Your task to perform on an android device: change alarm snooze length Image 0: 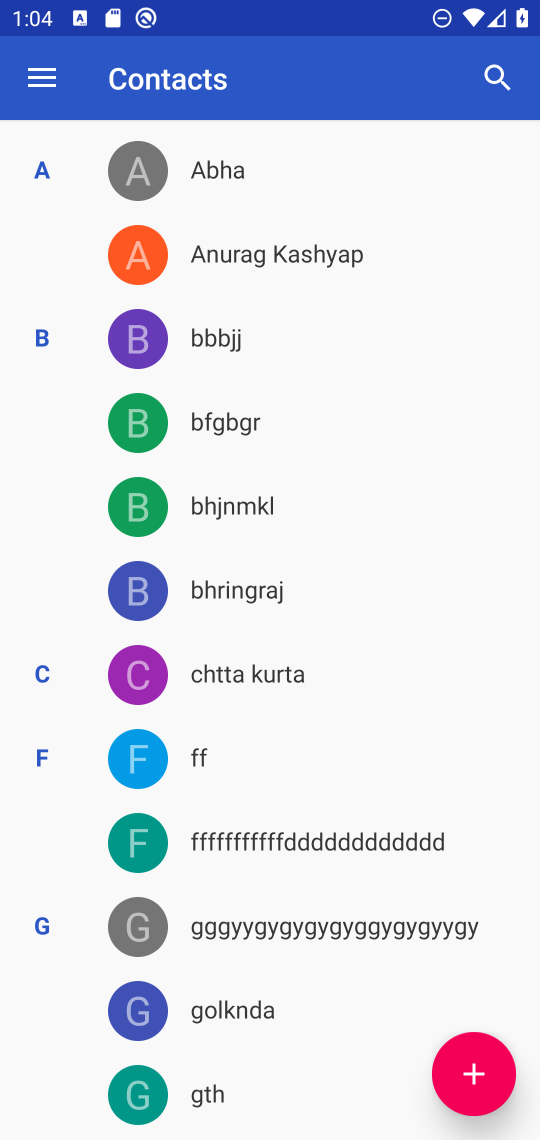
Step 0: press home button
Your task to perform on an android device: change alarm snooze length Image 1: 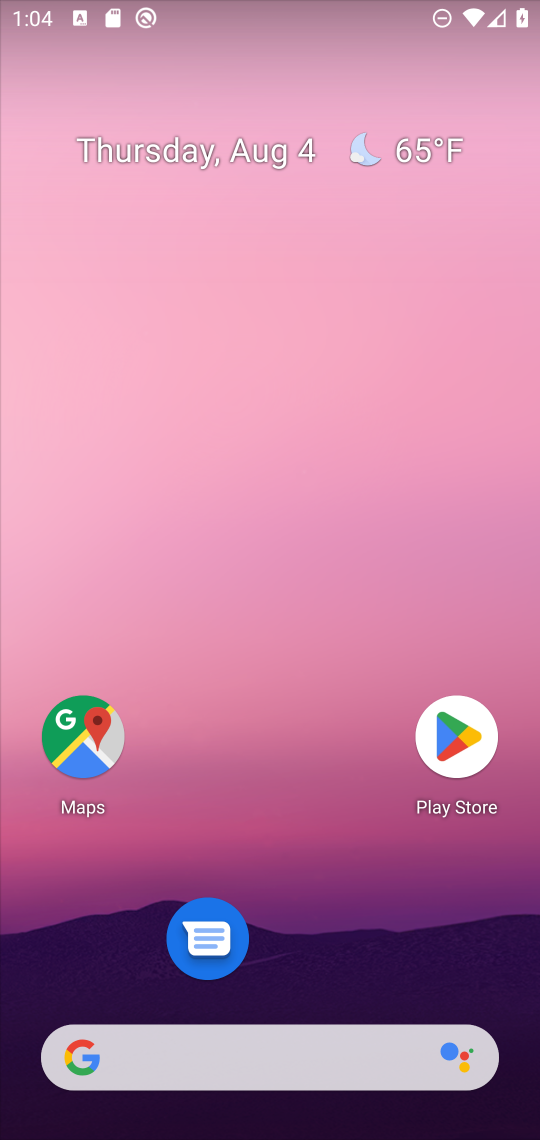
Step 1: drag from (300, 1096) to (385, 365)
Your task to perform on an android device: change alarm snooze length Image 2: 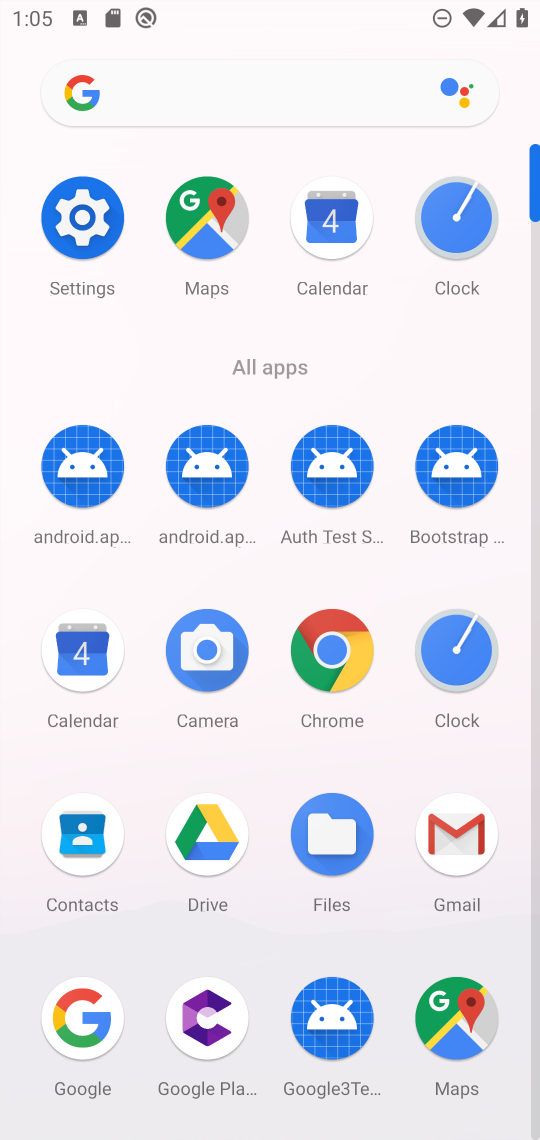
Step 2: click (450, 651)
Your task to perform on an android device: change alarm snooze length Image 3: 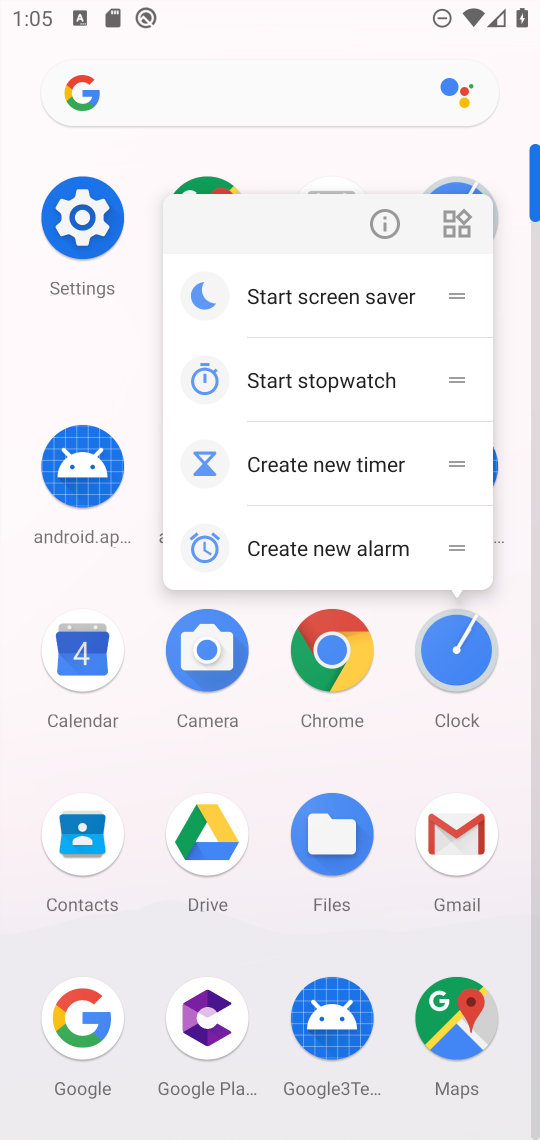
Step 3: click (450, 651)
Your task to perform on an android device: change alarm snooze length Image 4: 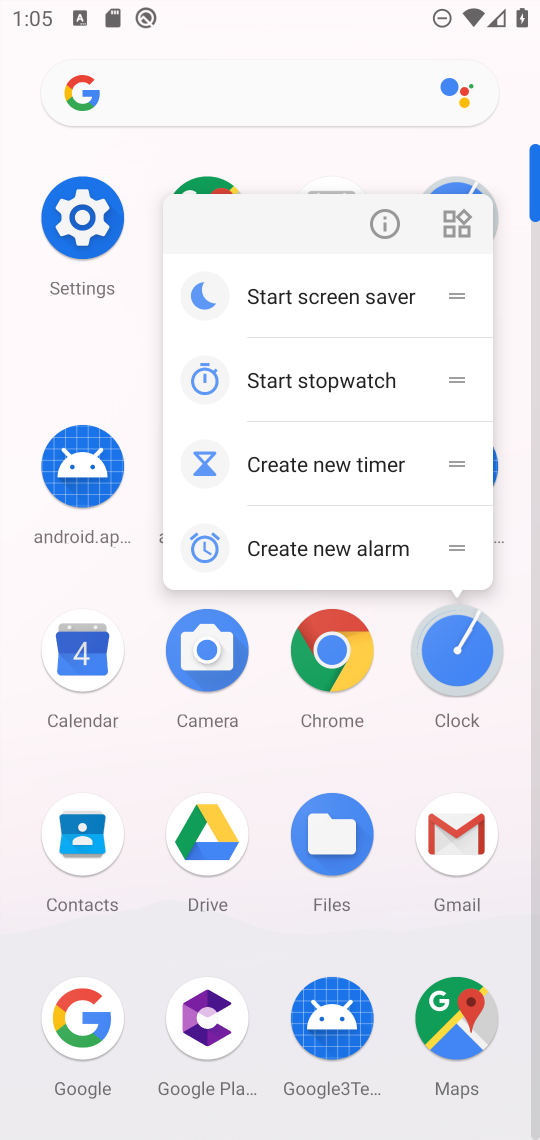
Step 4: click (455, 692)
Your task to perform on an android device: change alarm snooze length Image 5: 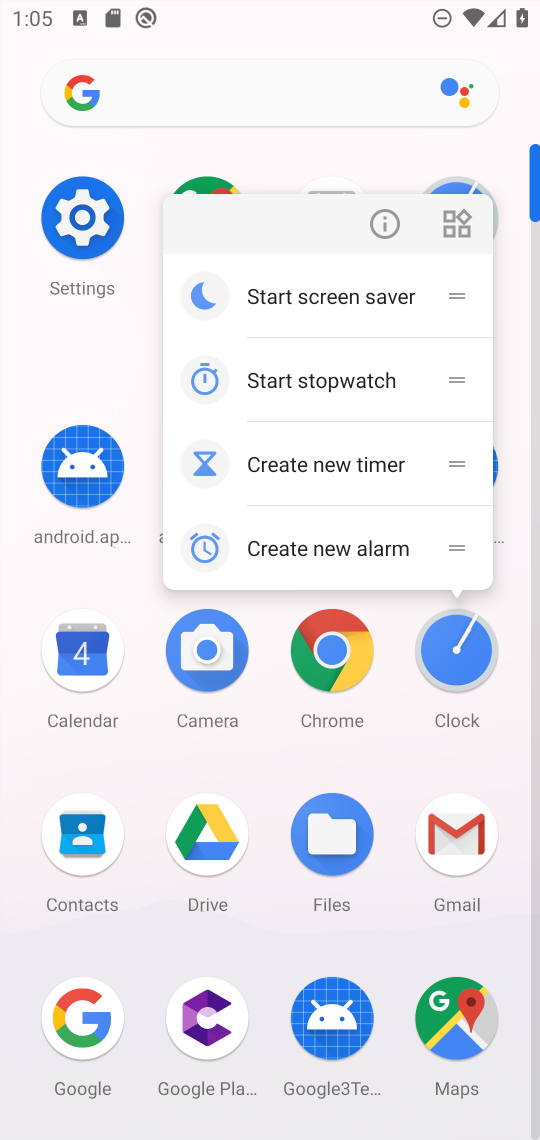
Step 5: click (447, 661)
Your task to perform on an android device: change alarm snooze length Image 6: 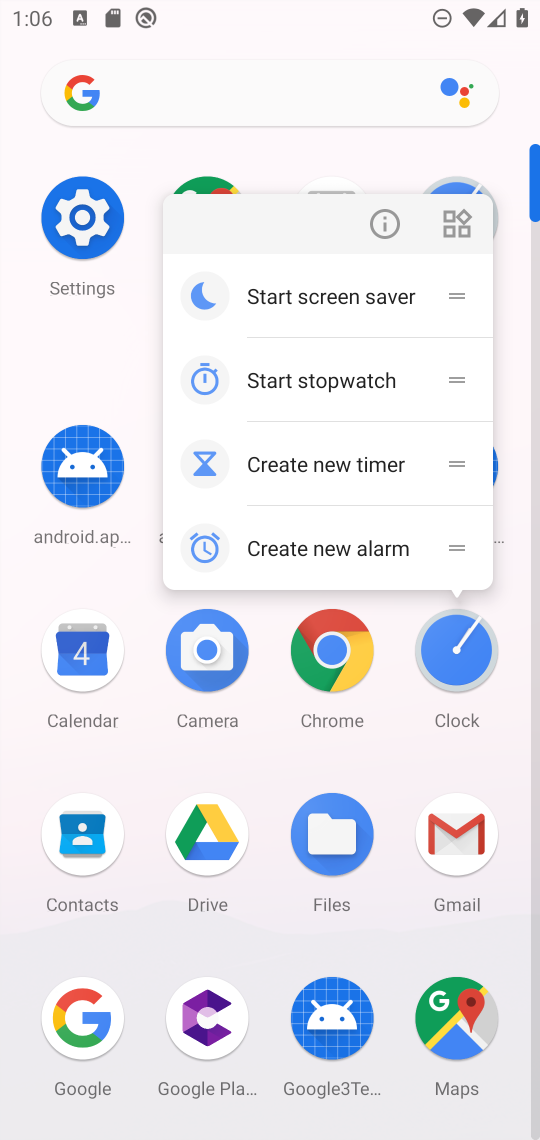
Step 6: click (447, 661)
Your task to perform on an android device: change alarm snooze length Image 7: 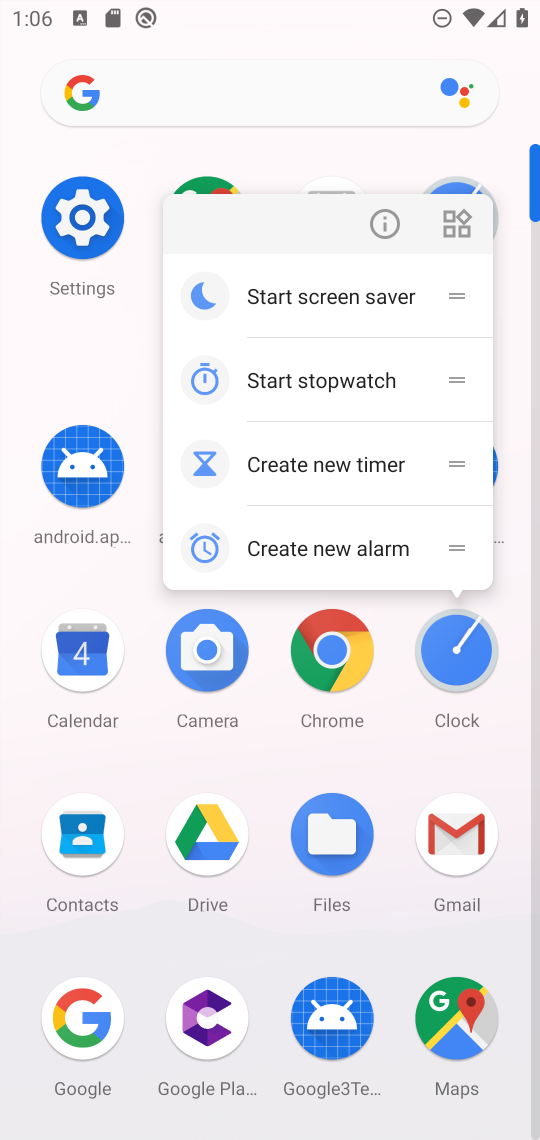
Step 7: click (478, 649)
Your task to perform on an android device: change alarm snooze length Image 8: 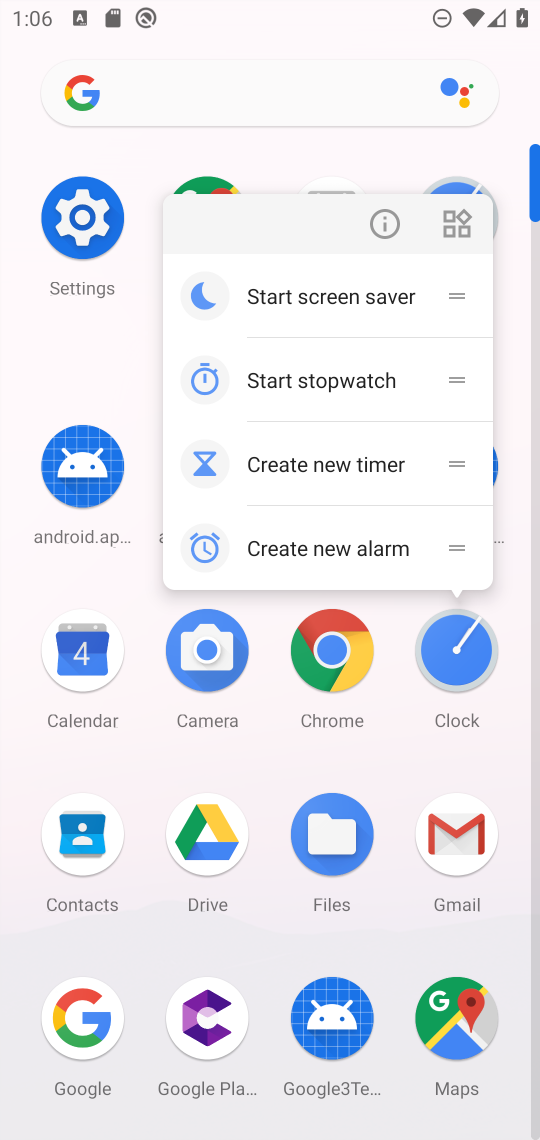
Step 8: click (459, 611)
Your task to perform on an android device: change alarm snooze length Image 9: 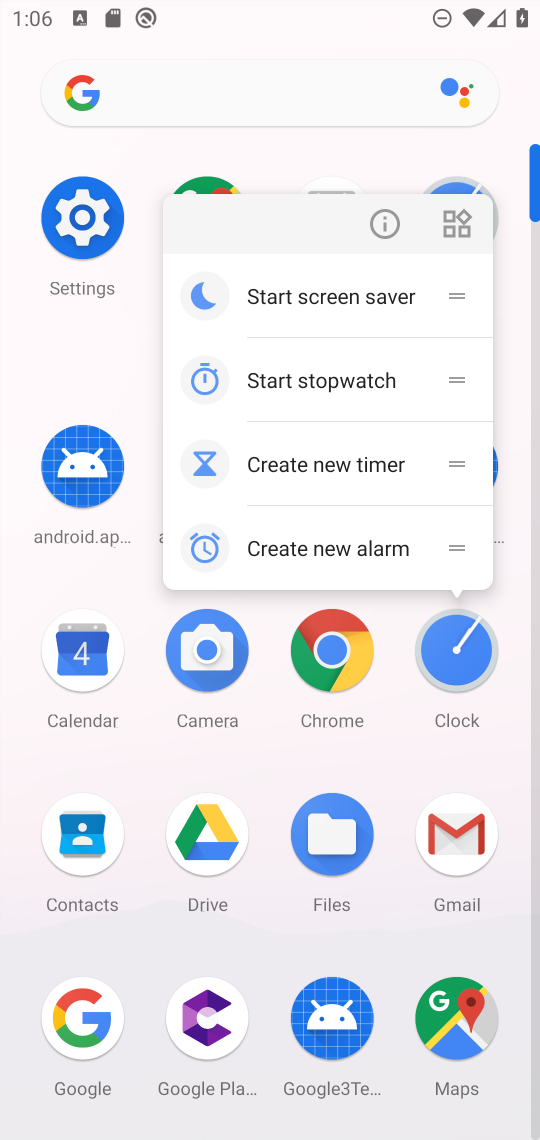
Step 9: click (475, 678)
Your task to perform on an android device: change alarm snooze length Image 10: 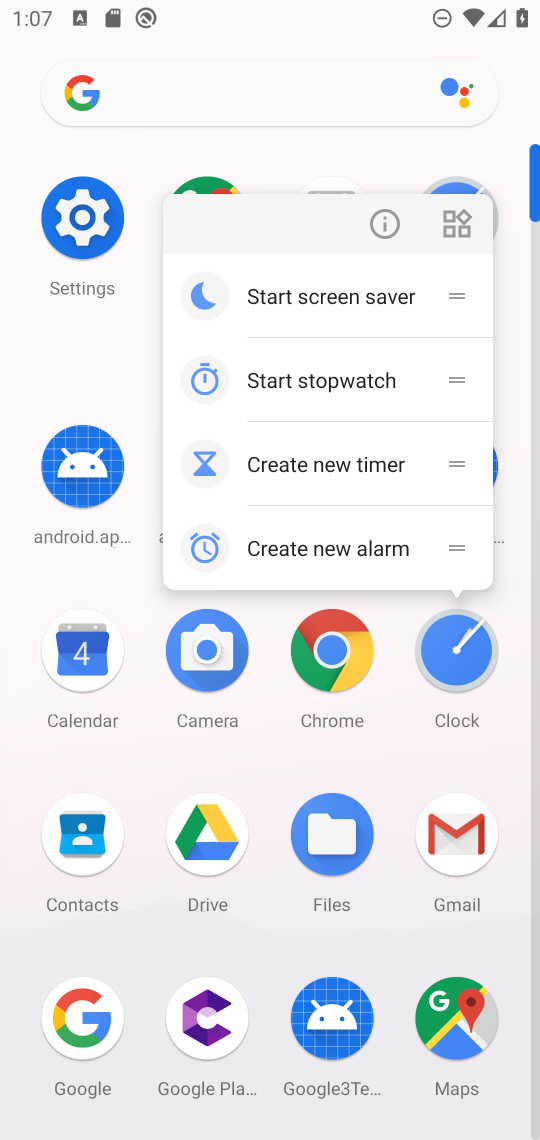
Step 10: click (474, 668)
Your task to perform on an android device: change alarm snooze length Image 11: 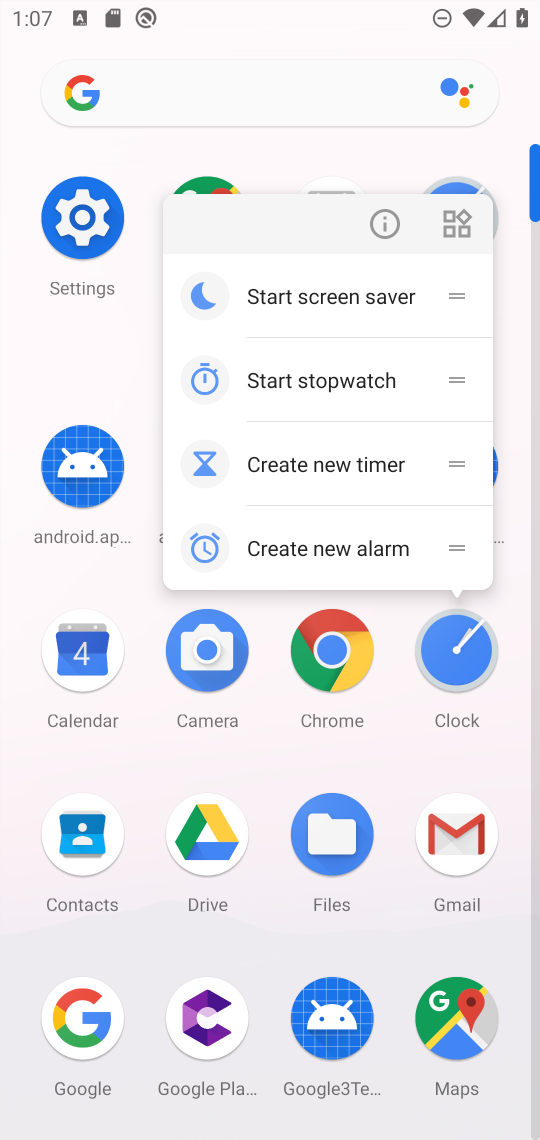
Step 11: click (474, 668)
Your task to perform on an android device: change alarm snooze length Image 12: 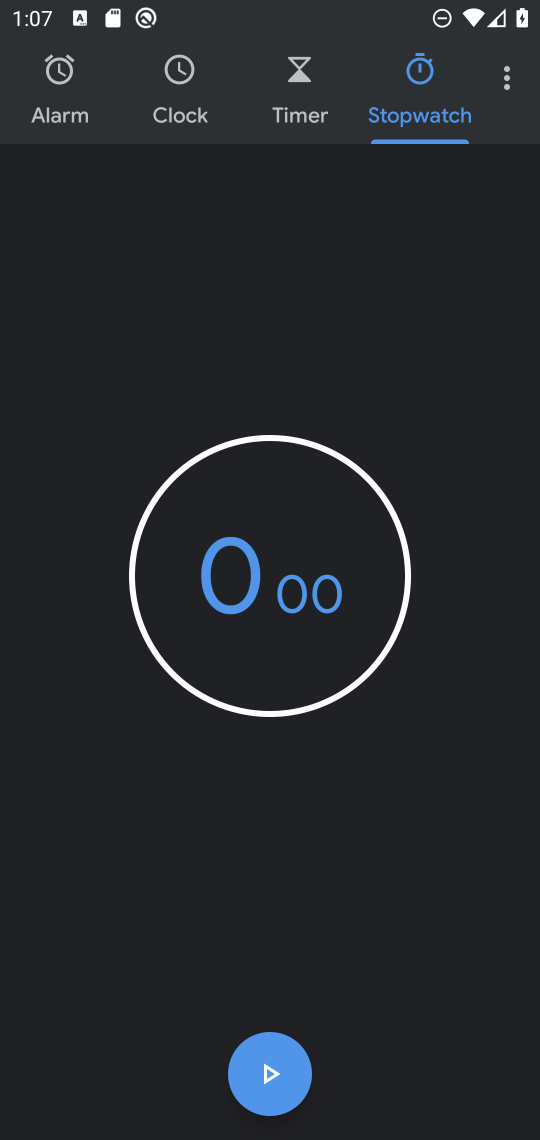
Step 12: click (511, 67)
Your task to perform on an android device: change alarm snooze length Image 13: 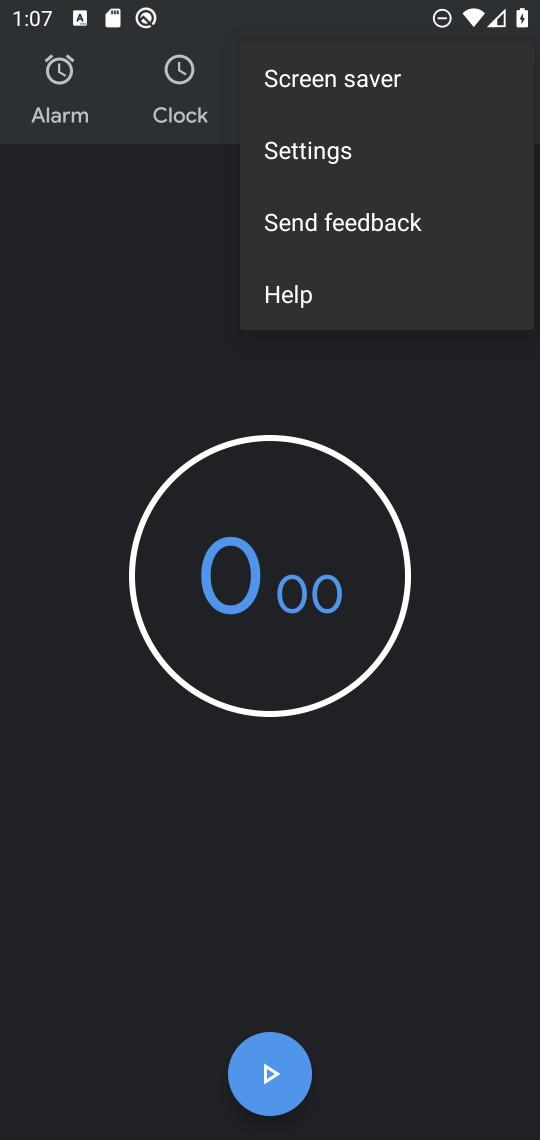
Step 13: click (397, 167)
Your task to perform on an android device: change alarm snooze length Image 14: 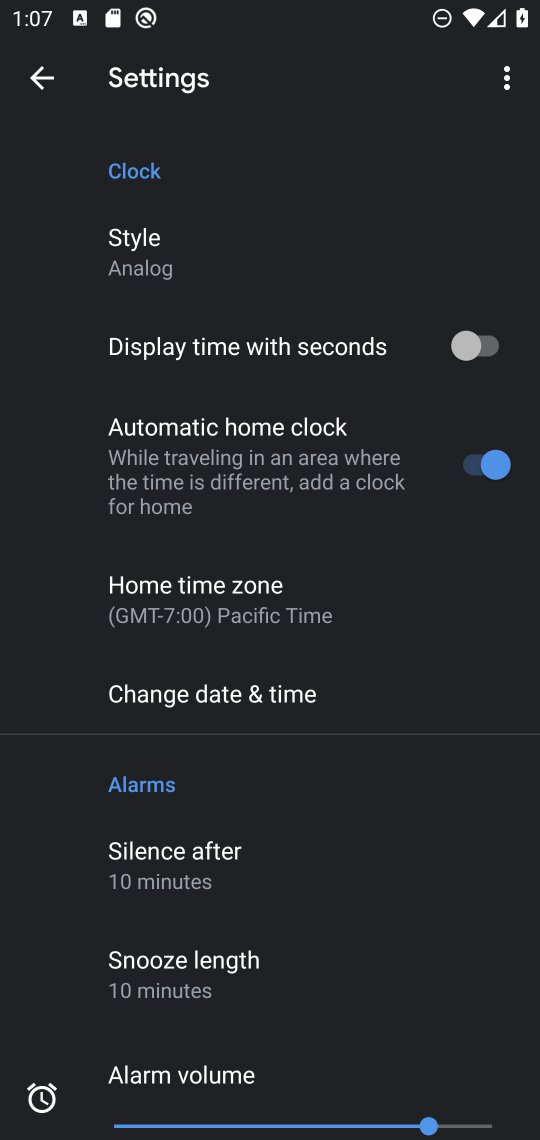
Step 14: click (236, 970)
Your task to perform on an android device: change alarm snooze length Image 15: 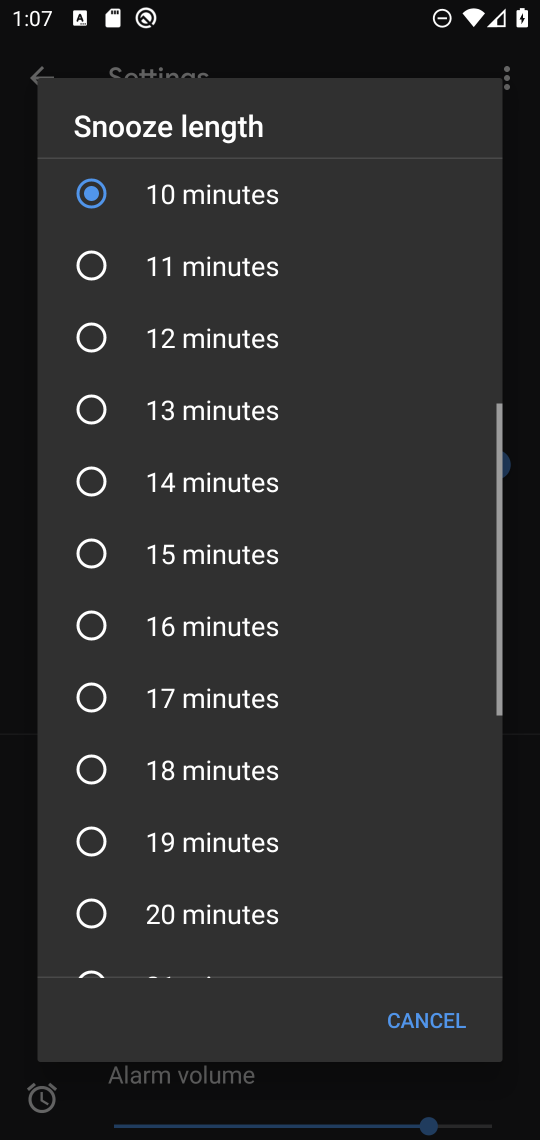
Step 15: click (242, 857)
Your task to perform on an android device: change alarm snooze length Image 16: 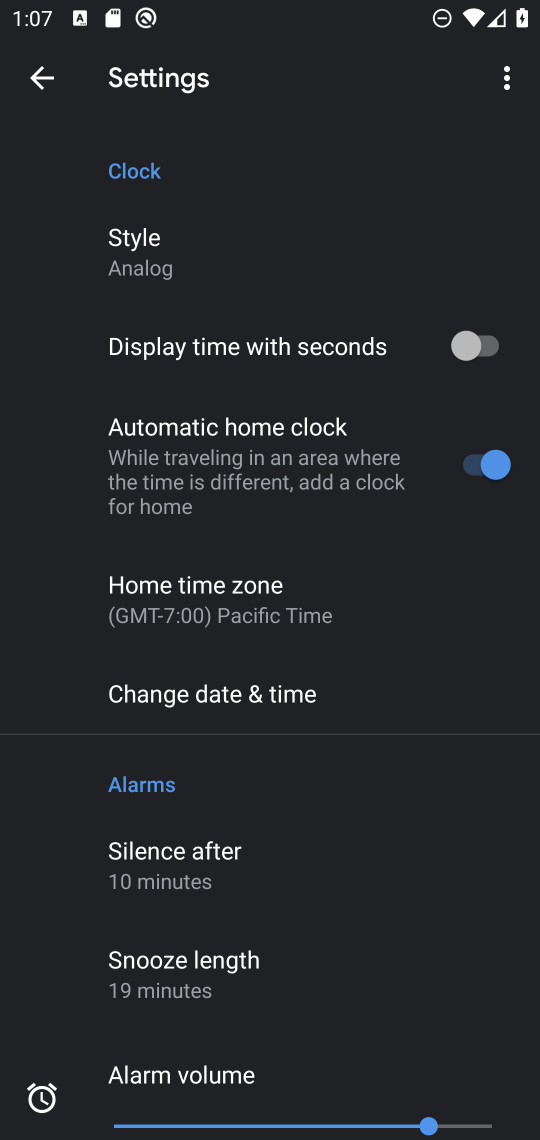
Step 16: task complete